Your task to perform on an android device: delete a single message in the gmail app Image 0: 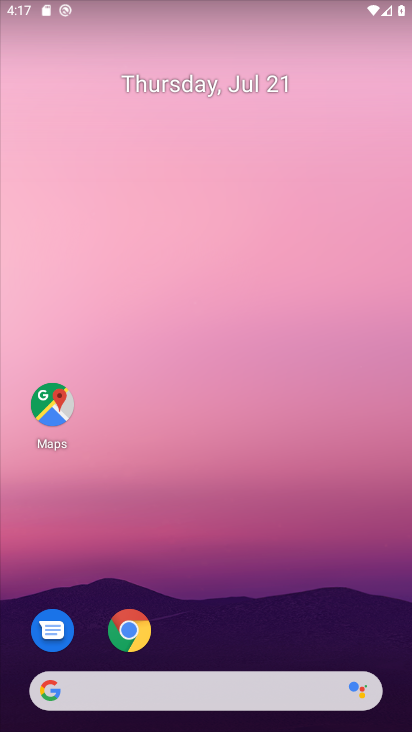
Step 0: drag from (388, 647) to (306, 240)
Your task to perform on an android device: delete a single message in the gmail app Image 1: 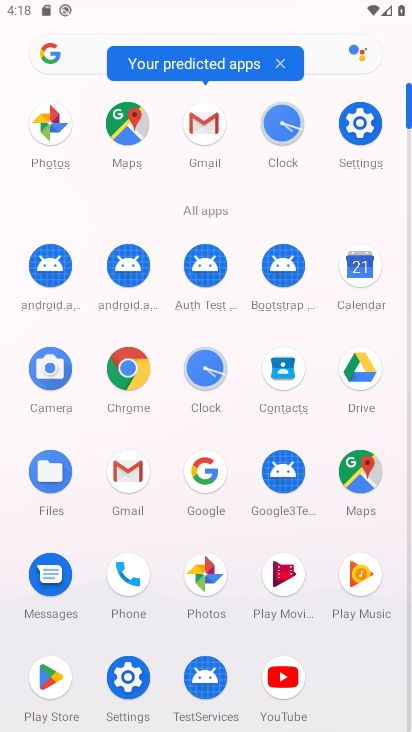
Step 1: click (201, 118)
Your task to perform on an android device: delete a single message in the gmail app Image 2: 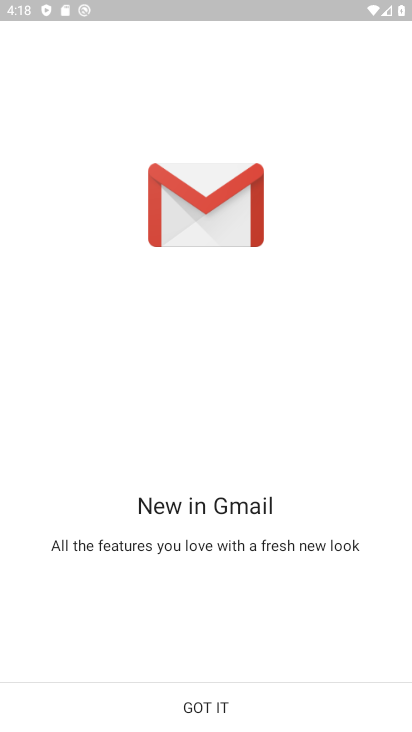
Step 2: click (210, 705)
Your task to perform on an android device: delete a single message in the gmail app Image 3: 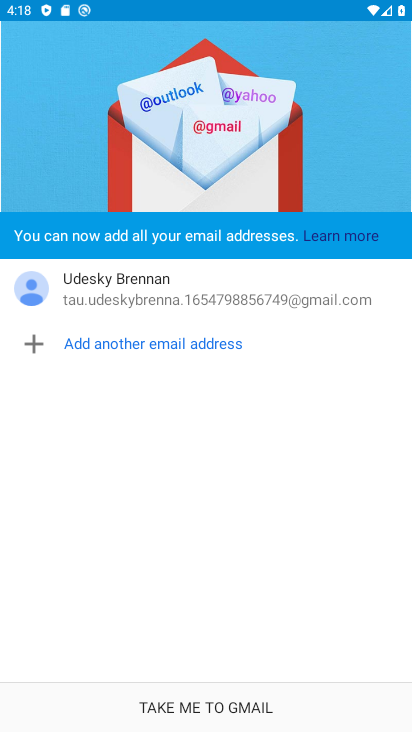
Step 3: click (210, 705)
Your task to perform on an android device: delete a single message in the gmail app Image 4: 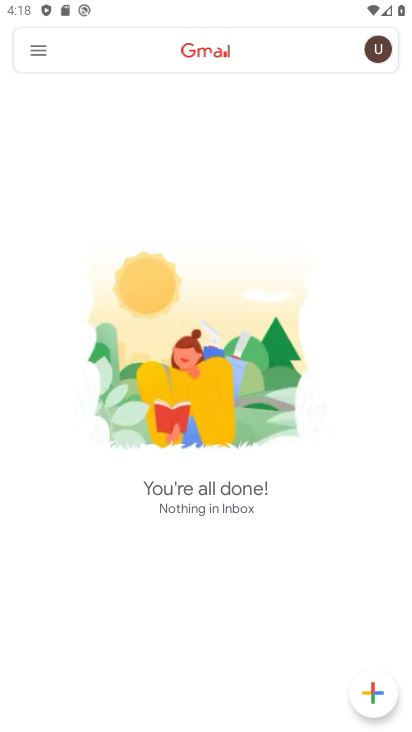
Step 4: click (36, 50)
Your task to perform on an android device: delete a single message in the gmail app Image 5: 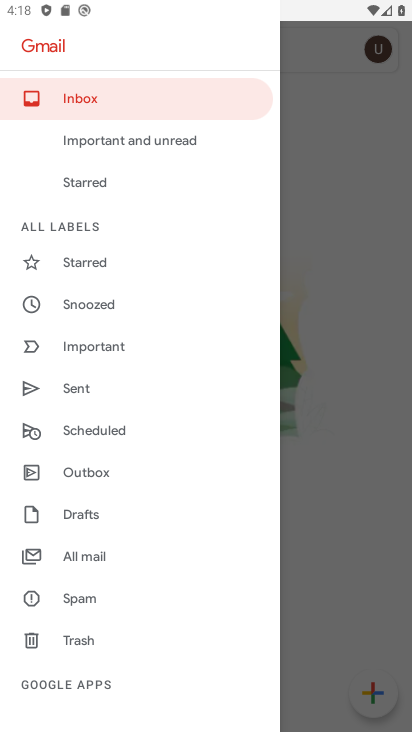
Step 5: click (141, 561)
Your task to perform on an android device: delete a single message in the gmail app Image 6: 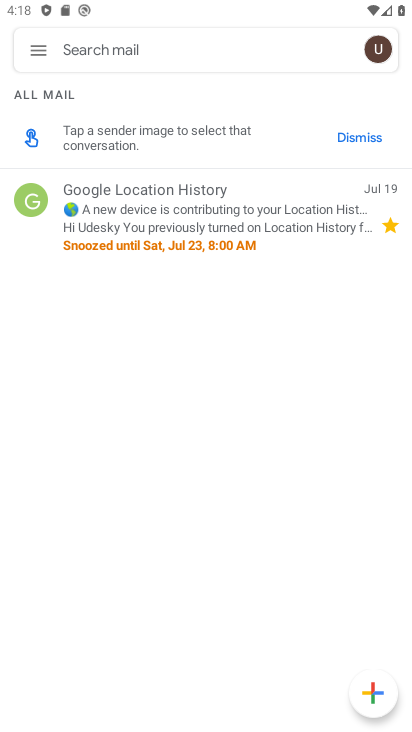
Step 6: click (148, 205)
Your task to perform on an android device: delete a single message in the gmail app Image 7: 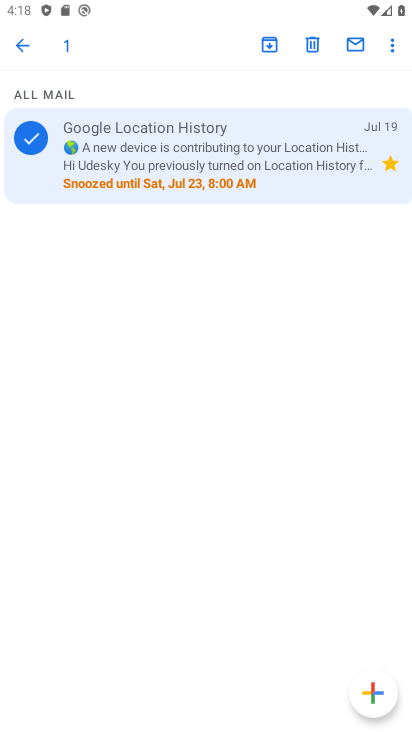
Step 7: click (311, 41)
Your task to perform on an android device: delete a single message in the gmail app Image 8: 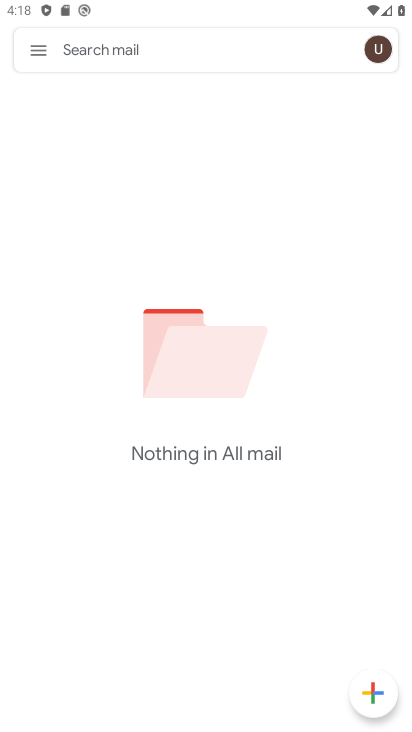
Step 8: task complete